Your task to perform on an android device: turn off javascript in the chrome app Image 0: 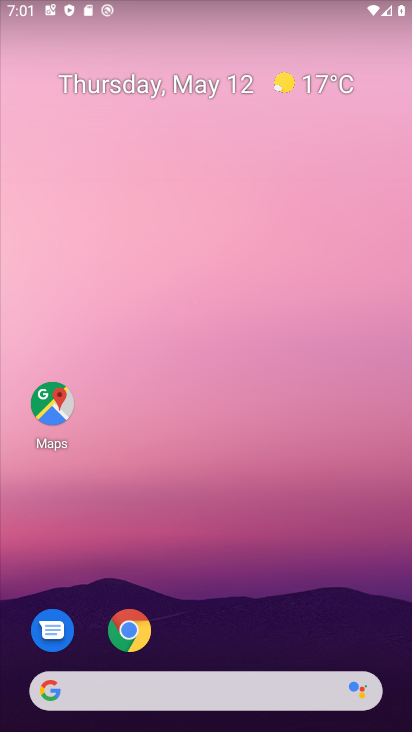
Step 0: drag from (327, 653) to (208, 86)
Your task to perform on an android device: turn off javascript in the chrome app Image 1: 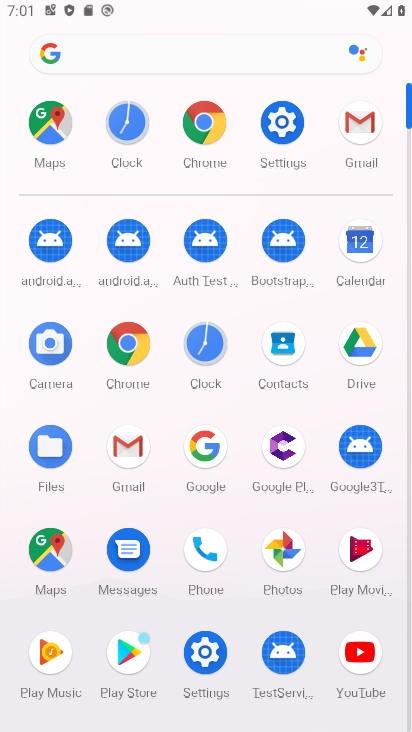
Step 1: click (204, 128)
Your task to perform on an android device: turn off javascript in the chrome app Image 2: 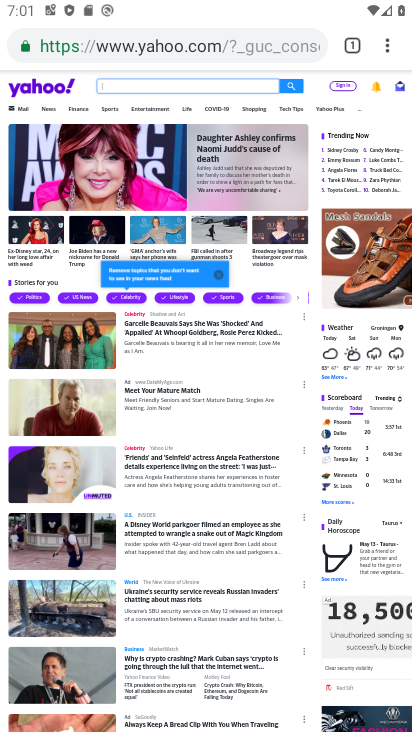
Step 2: press back button
Your task to perform on an android device: turn off javascript in the chrome app Image 3: 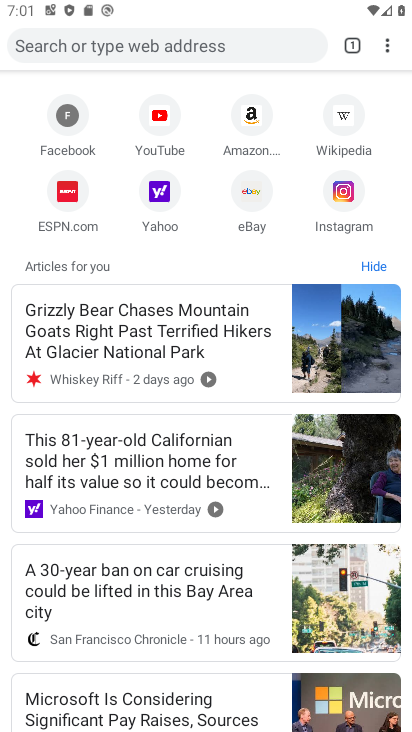
Step 3: click (385, 53)
Your task to perform on an android device: turn off javascript in the chrome app Image 4: 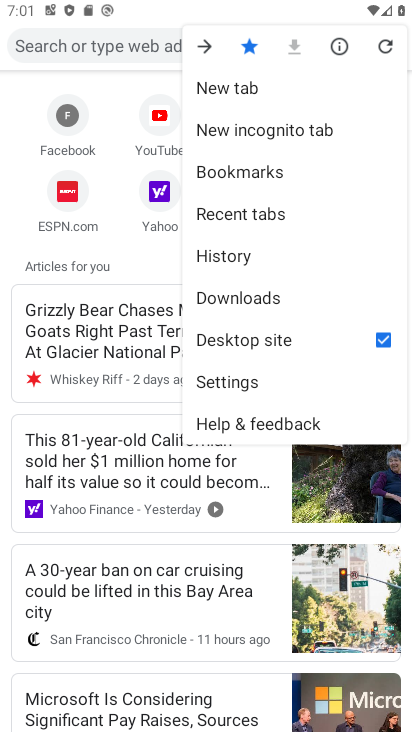
Step 4: click (269, 381)
Your task to perform on an android device: turn off javascript in the chrome app Image 5: 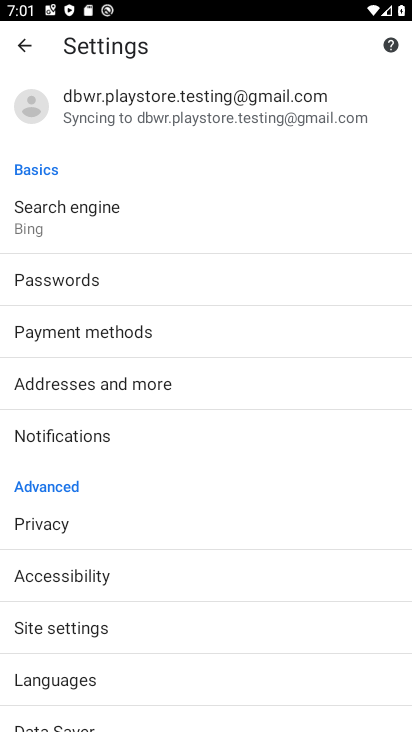
Step 5: click (137, 647)
Your task to perform on an android device: turn off javascript in the chrome app Image 6: 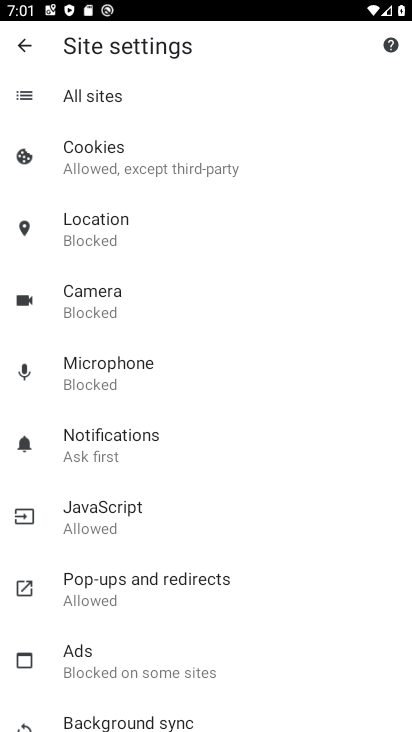
Step 6: click (120, 502)
Your task to perform on an android device: turn off javascript in the chrome app Image 7: 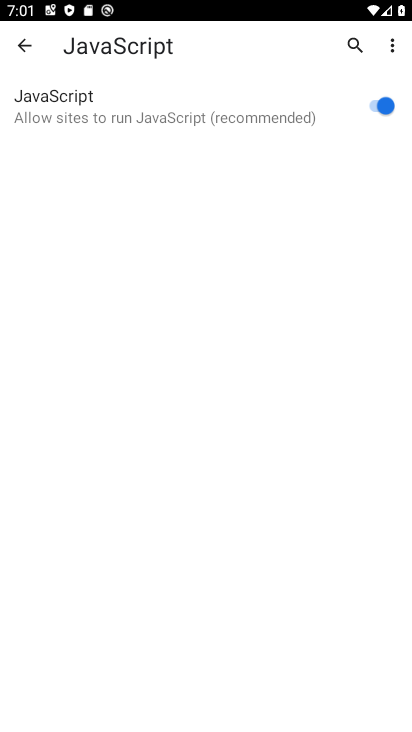
Step 7: click (371, 110)
Your task to perform on an android device: turn off javascript in the chrome app Image 8: 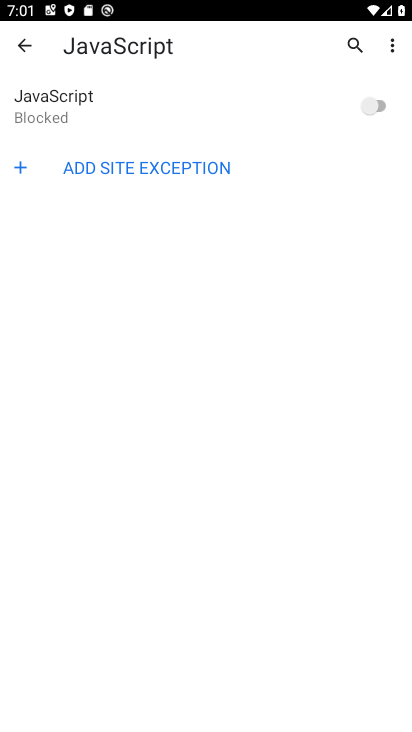
Step 8: task complete